Your task to perform on an android device: make emails show in primary in the gmail app Image 0: 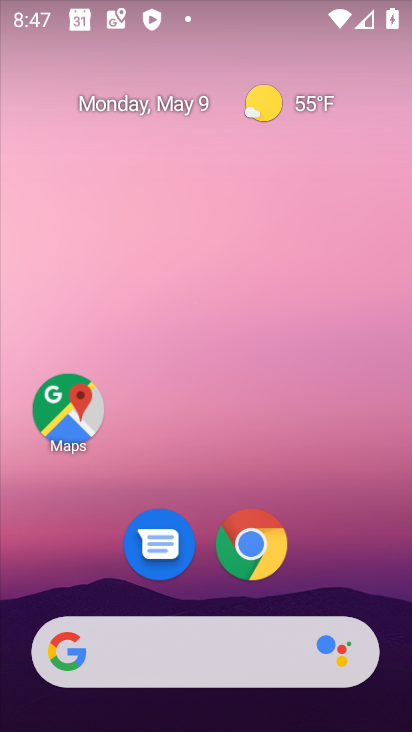
Step 0: drag from (187, 588) to (191, 216)
Your task to perform on an android device: make emails show in primary in the gmail app Image 1: 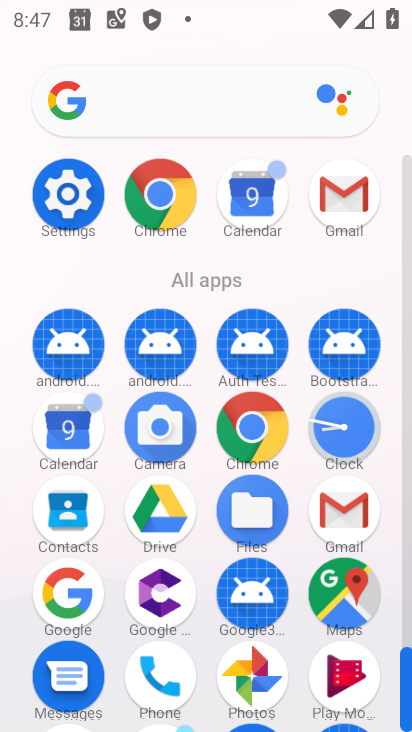
Step 1: click (339, 219)
Your task to perform on an android device: make emails show in primary in the gmail app Image 2: 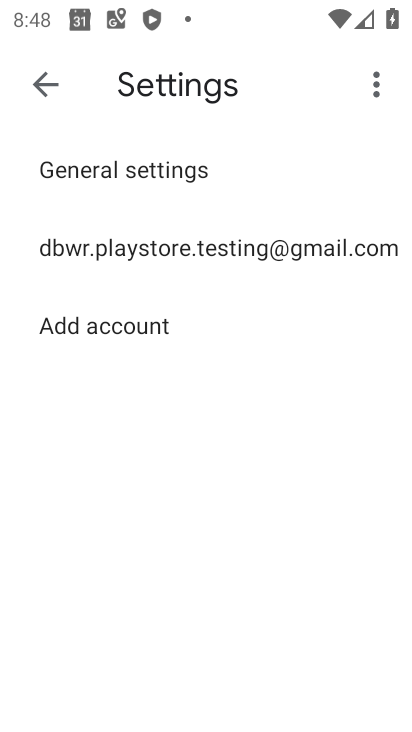
Step 2: click (95, 233)
Your task to perform on an android device: make emails show in primary in the gmail app Image 3: 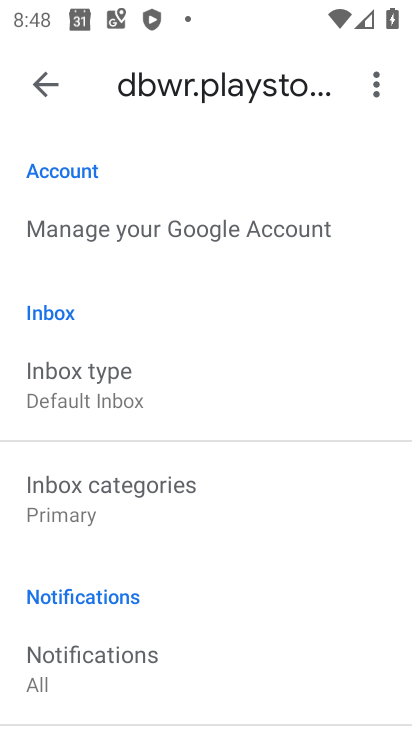
Step 3: click (137, 486)
Your task to perform on an android device: make emails show in primary in the gmail app Image 4: 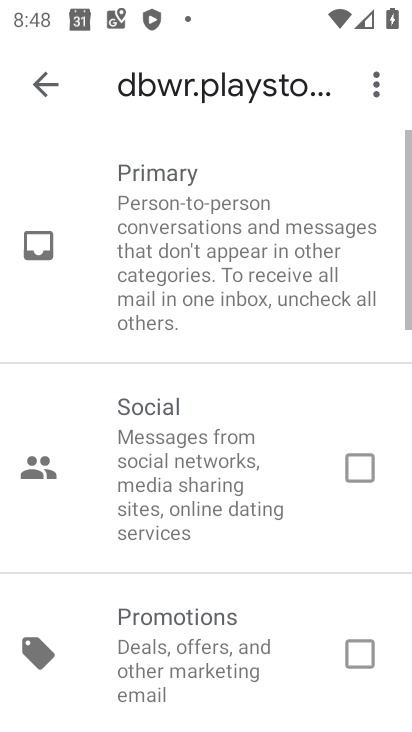
Step 4: click (127, 244)
Your task to perform on an android device: make emails show in primary in the gmail app Image 5: 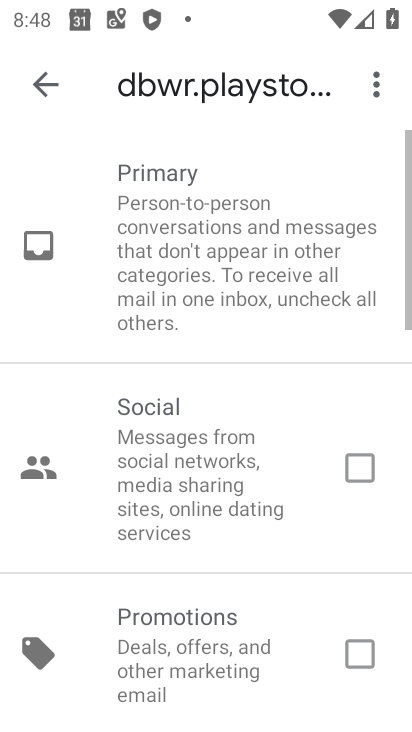
Step 5: task complete